Your task to perform on an android device: What's the US dollar exchange rate against the Brazilian Real? Image 0: 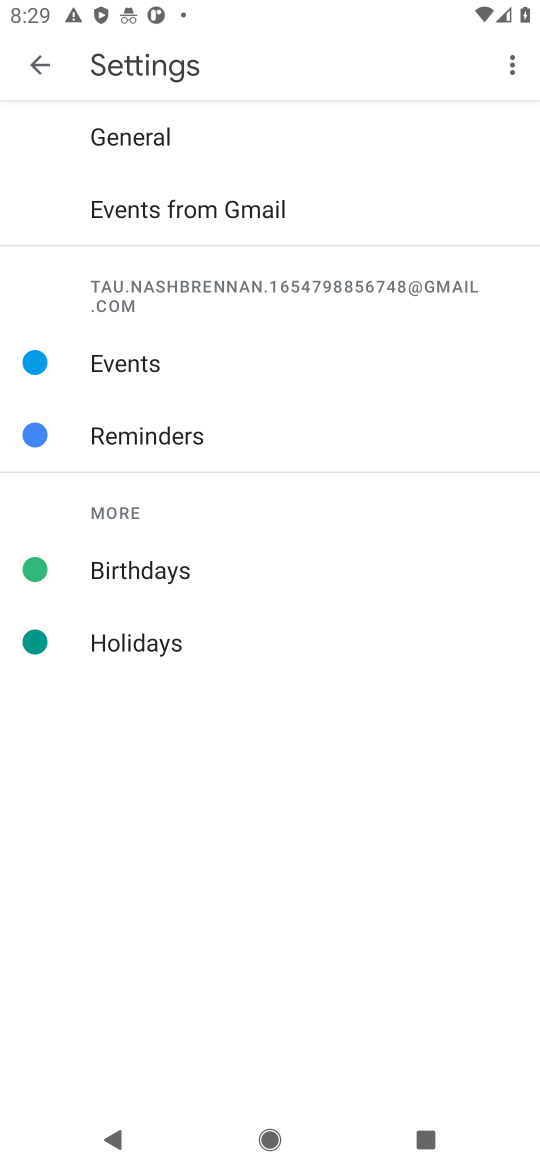
Step 0: press home button
Your task to perform on an android device: What's the US dollar exchange rate against the Brazilian Real? Image 1: 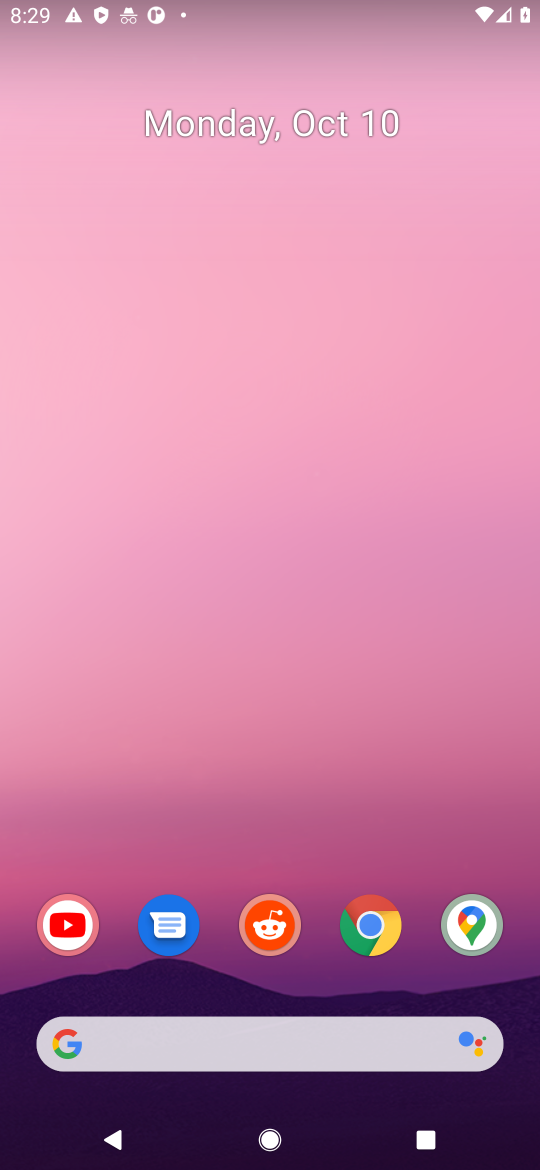
Step 1: drag from (307, 934) to (419, 198)
Your task to perform on an android device: What's the US dollar exchange rate against the Brazilian Real? Image 2: 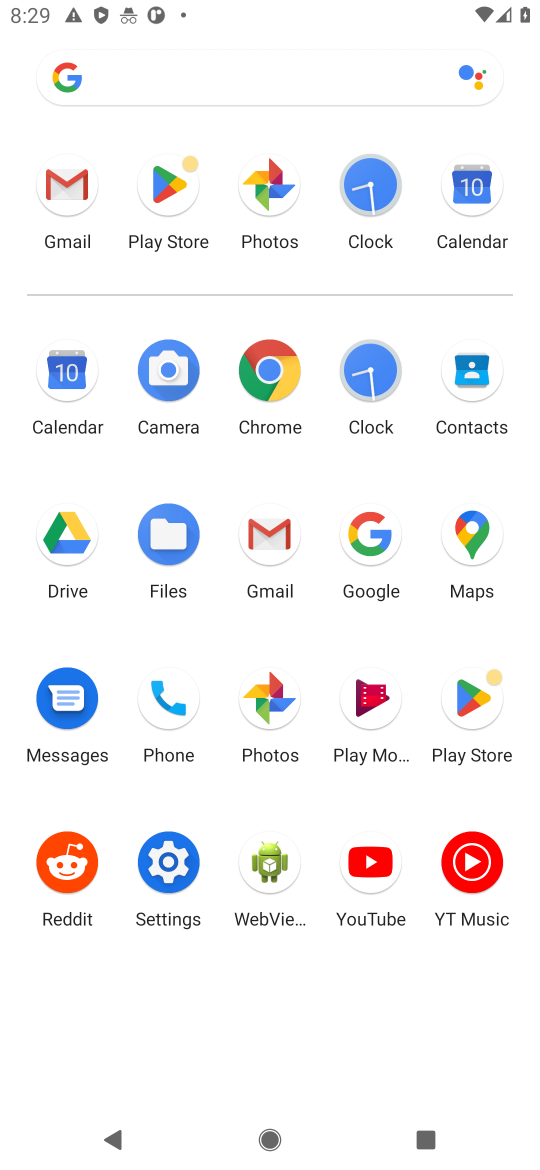
Step 2: click (260, 373)
Your task to perform on an android device: What's the US dollar exchange rate against the Brazilian Real? Image 3: 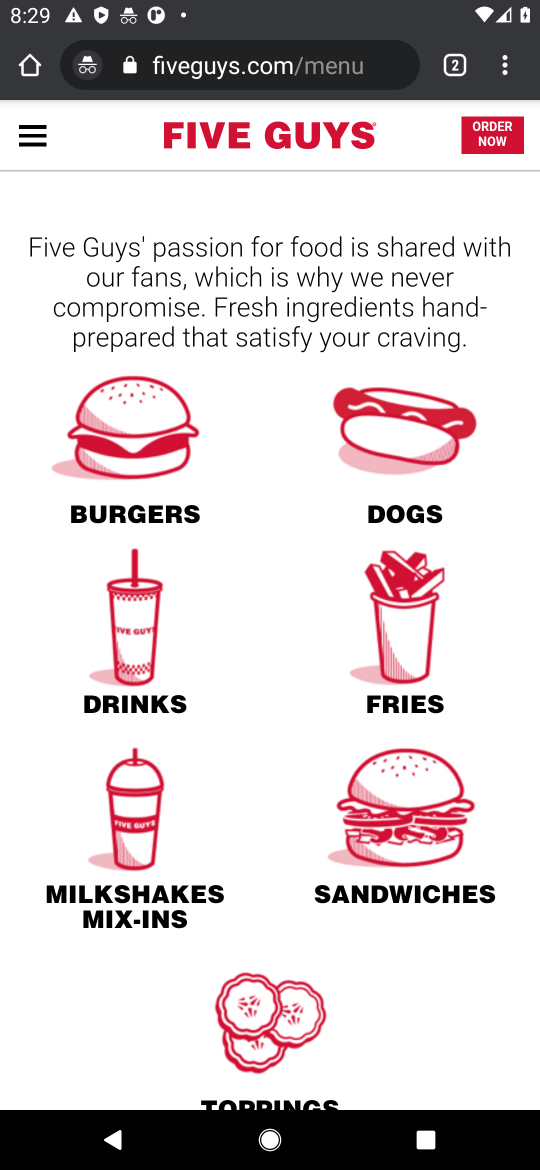
Step 3: click (320, 78)
Your task to perform on an android device: What's the US dollar exchange rate against the Brazilian Real? Image 4: 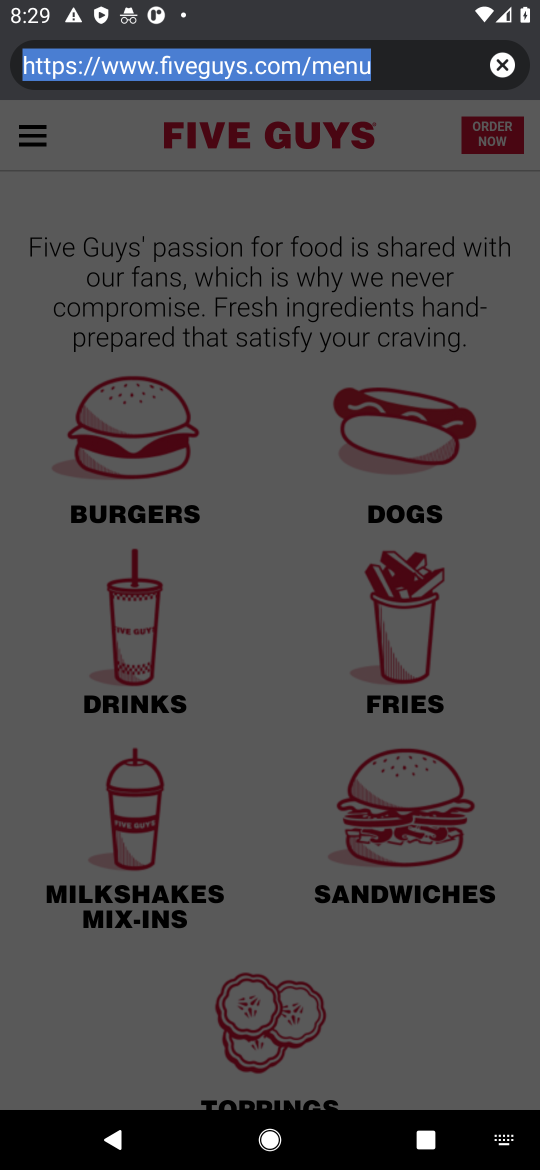
Step 4: type "What's the us dollar exchange rate against the Brazillian Real?"
Your task to perform on an android device: What's the US dollar exchange rate against the Brazilian Real? Image 5: 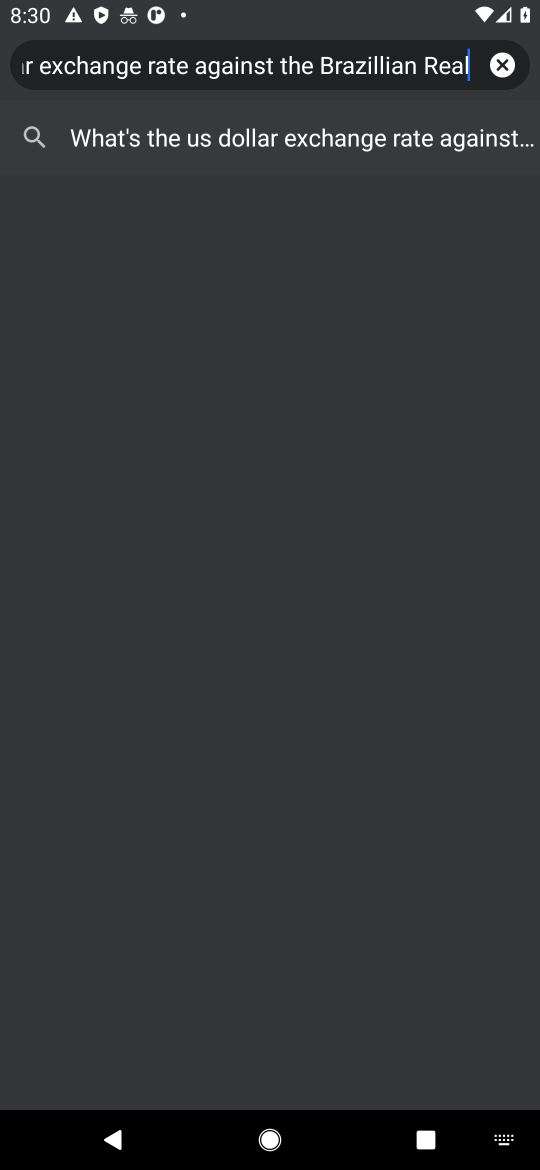
Step 5: type "?"
Your task to perform on an android device: What's the US dollar exchange rate against the Brazilian Real? Image 6: 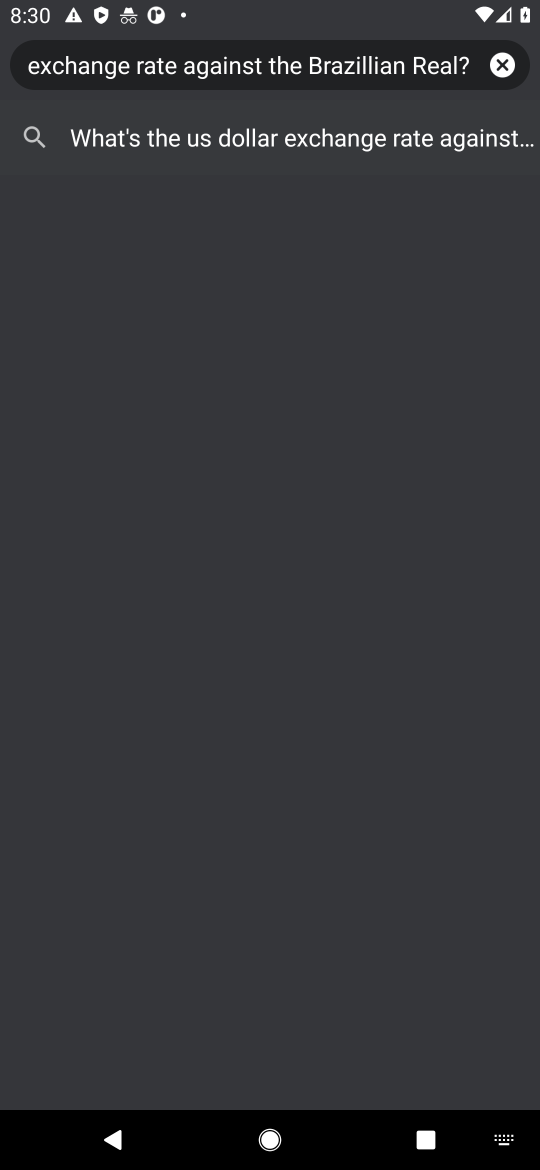
Step 6: press enter
Your task to perform on an android device: What's the US dollar exchange rate against the Brazilian Real? Image 7: 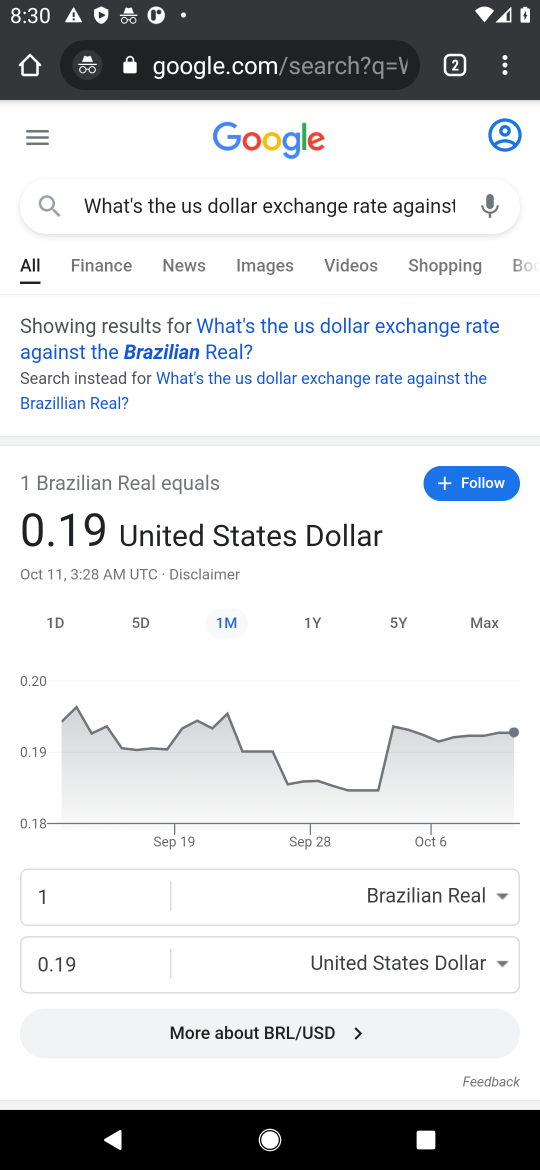
Step 7: task complete